Your task to perform on an android device: clear history in the chrome app Image 0: 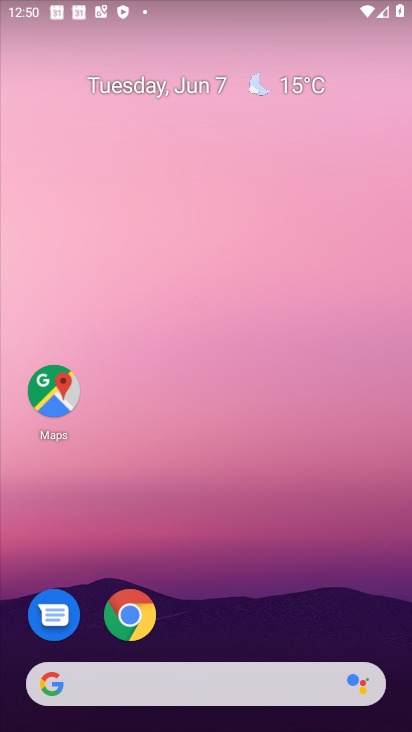
Step 0: click (126, 624)
Your task to perform on an android device: clear history in the chrome app Image 1: 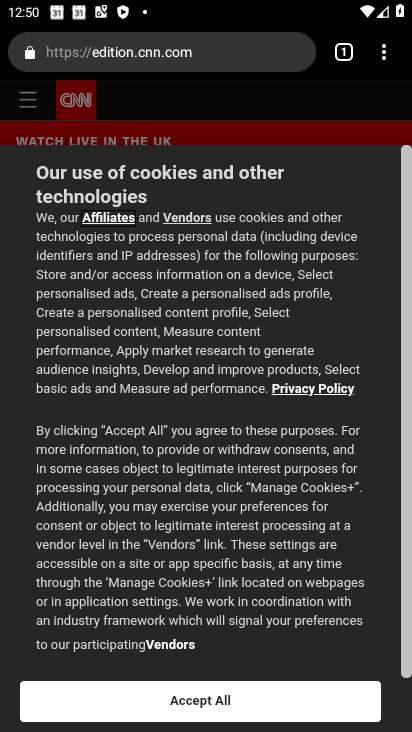
Step 1: click (385, 56)
Your task to perform on an android device: clear history in the chrome app Image 2: 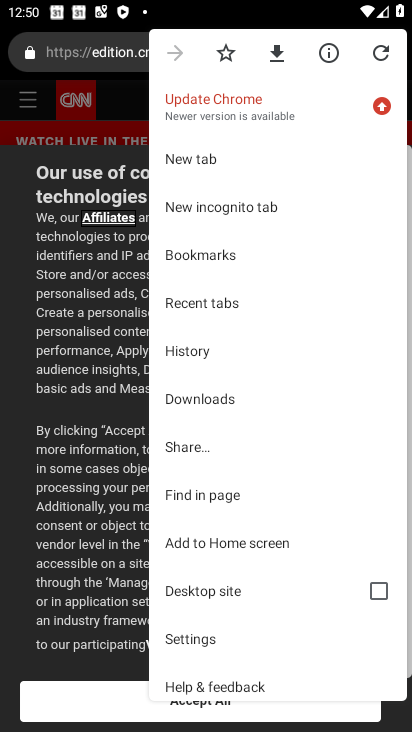
Step 2: click (193, 647)
Your task to perform on an android device: clear history in the chrome app Image 3: 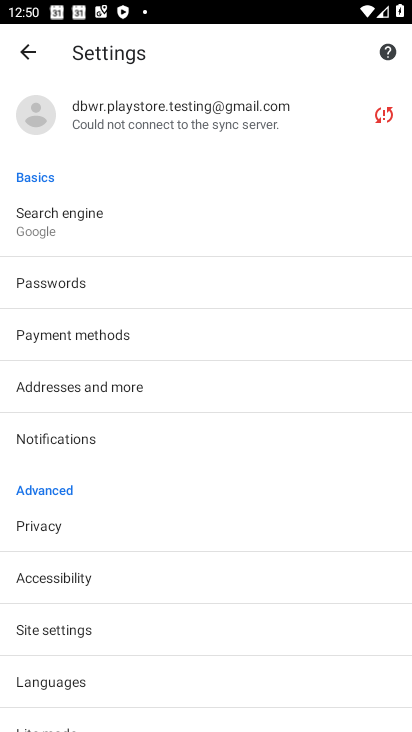
Step 3: press back button
Your task to perform on an android device: clear history in the chrome app Image 4: 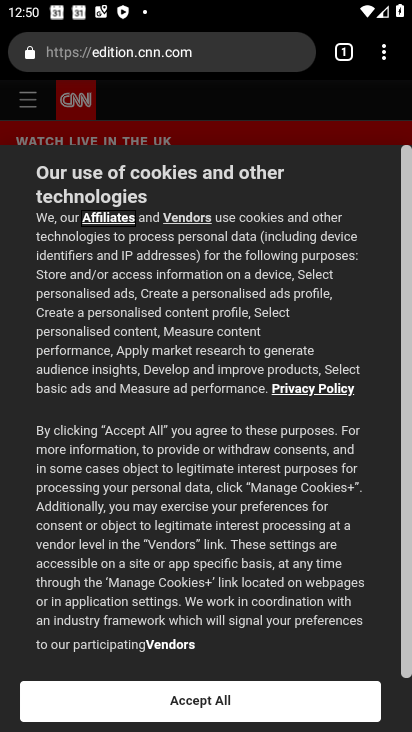
Step 4: click (381, 55)
Your task to perform on an android device: clear history in the chrome app Image 5: 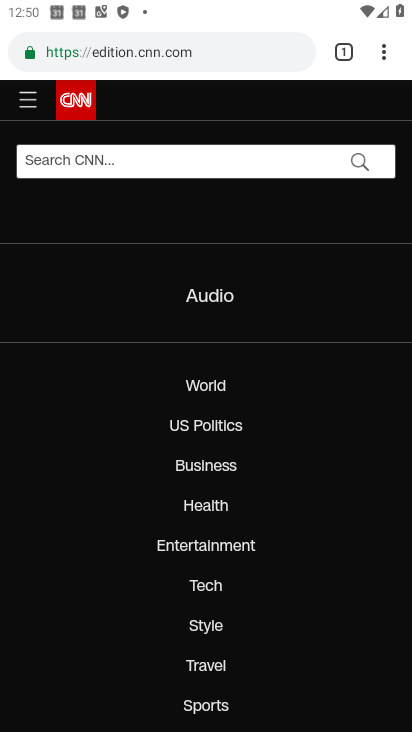
Step 5: click (383, 52)
Your task to perform on an android device: clear history in the chrome app Image 6: 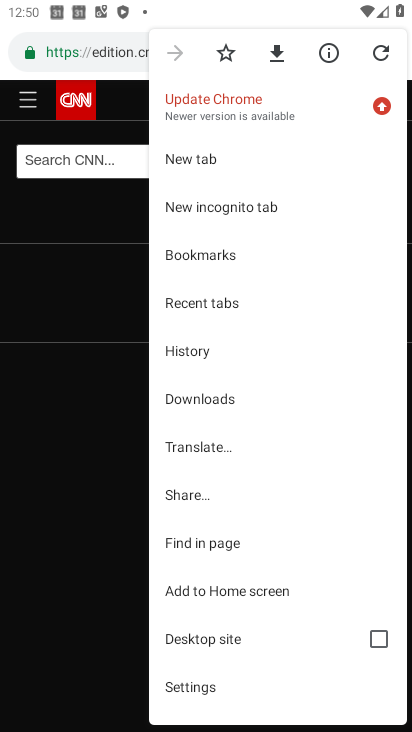
Step 6: click (186, 358)
Your task to perform on an android device: clear history in the chrome app Image 7: 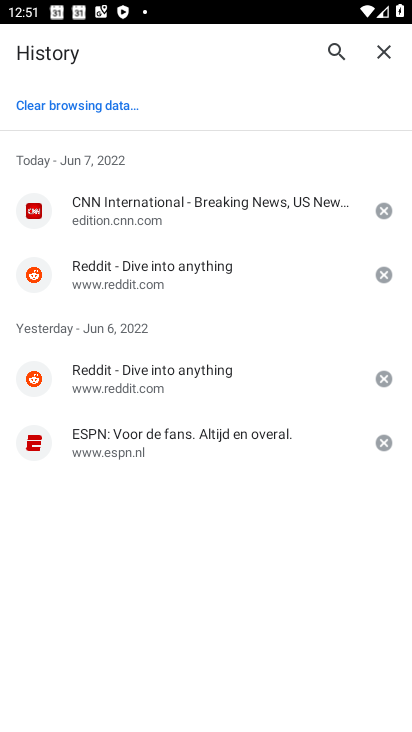
Step 7: click (76, 90)
Your task to perform on an android device: clear history in the chrome app Image 8: 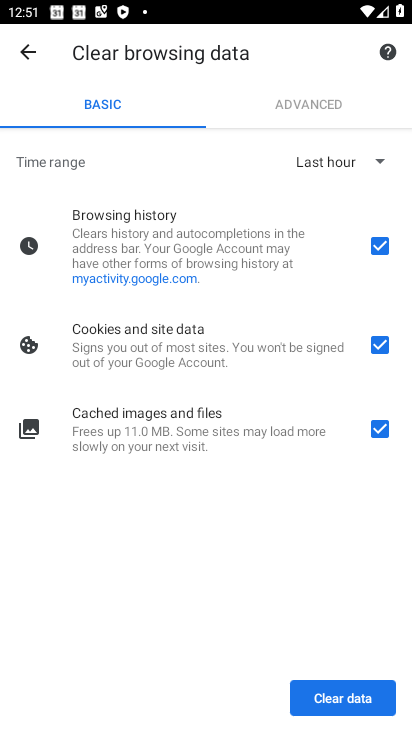
Step 8: click (334, 696)
Your task to perform on an android device: clear history in the chrome app Image 9: 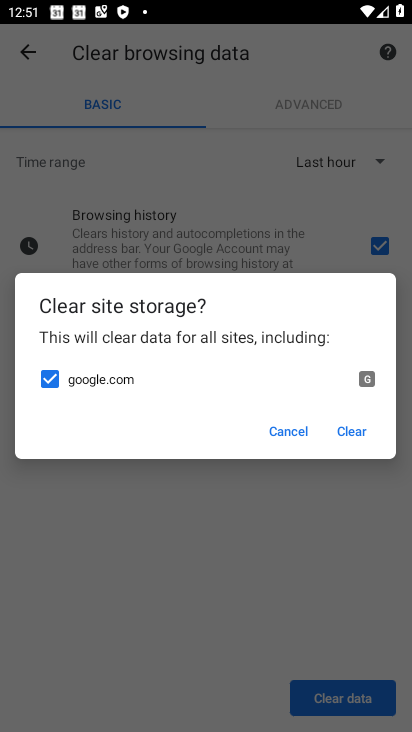
Step 9: click (346, 424)
Your task to perform on an android device: clear history in the chrome app Image 10: 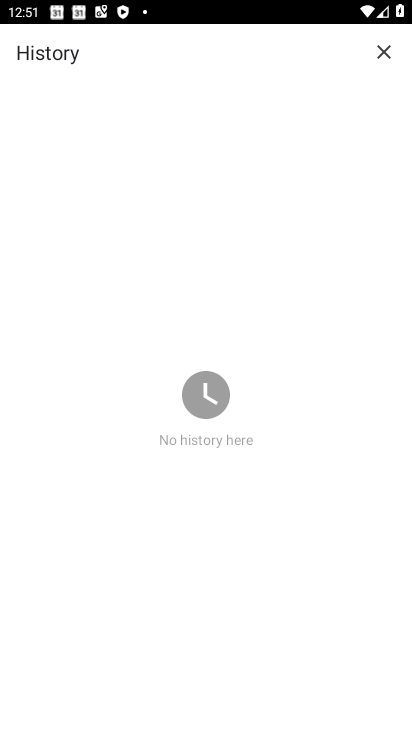
Step 10: task complete